Your task to perform on an android device: Open Google Chrome and open the bookmarks view Image 0: 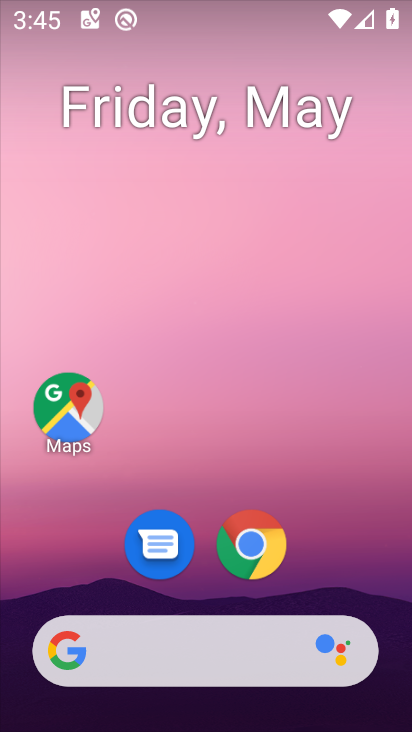
Step 0: drag from (311, 681) to (214, 246)
Your task to perform on an android device: Open Google Chrome and open the bookmarks view Image 1: 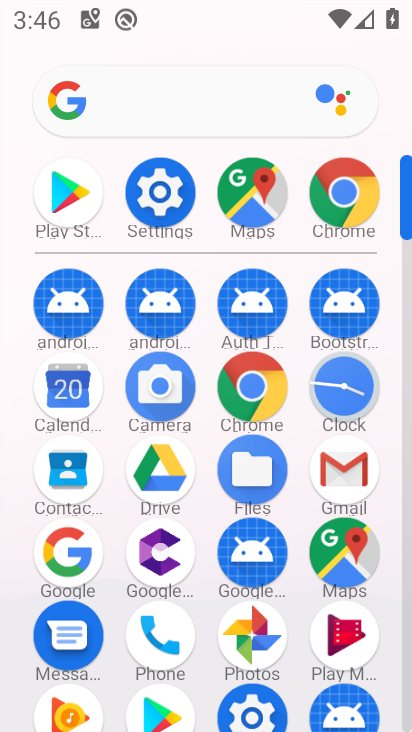
Step 1: click (339, 194)
Your task to perform on an android device: Open Google Chrome and open the bookmarks view Image 2: 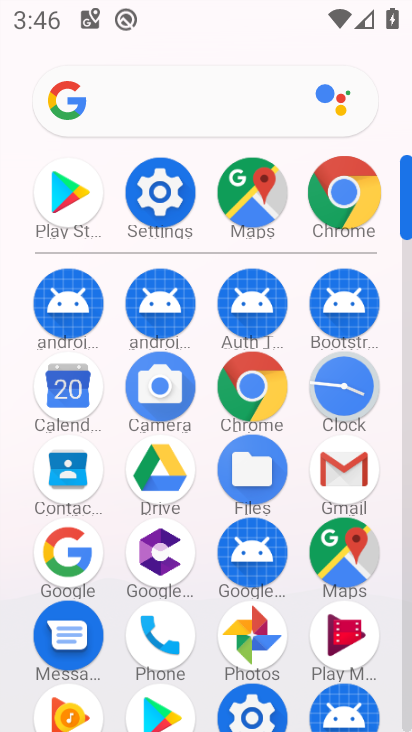
Step 2: click (339, 194)
Your task to perform on an android device: Open Google Chrome and open the bookmarks view Image 3: 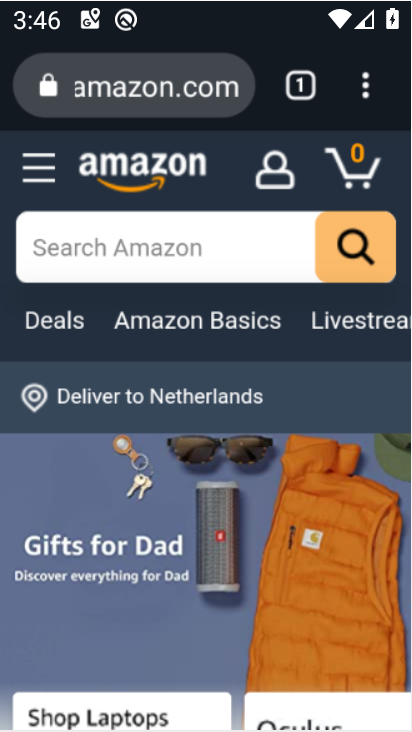
Step 3: click (339, 194)
Your task to perform on an android device: Open Google Chrome and open the bookmarks view Image 4: 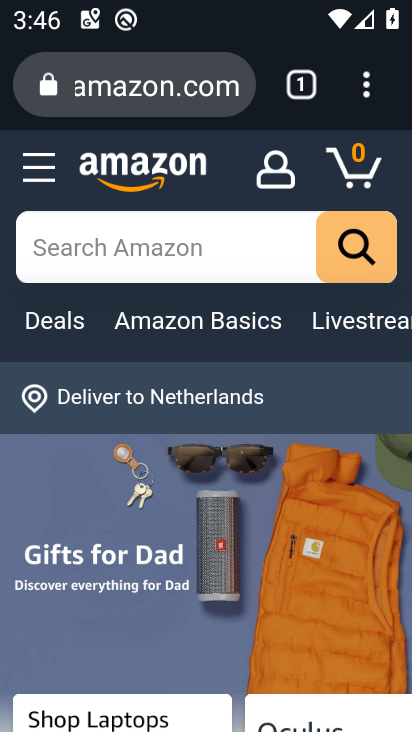
Step 4: drag from (362, 96) to (123, 313)
Your task to perform on an android device: Open Google Chrome and open the bookmarks view Image 5: 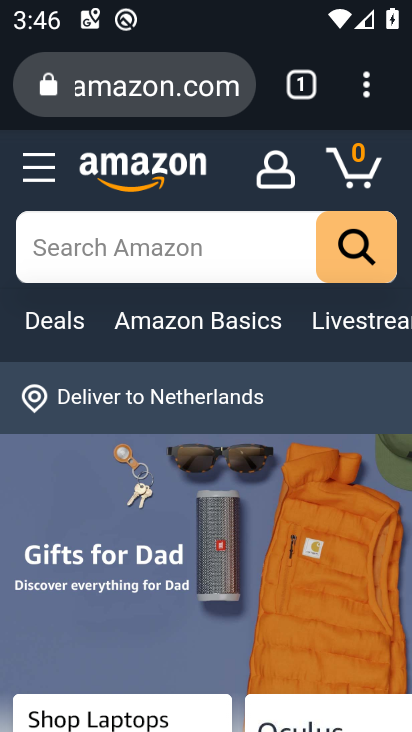
Step 5: click (102, 321)
Your task to perform on an android device: Open Google Chrome and open the bookmarks view Image 6: 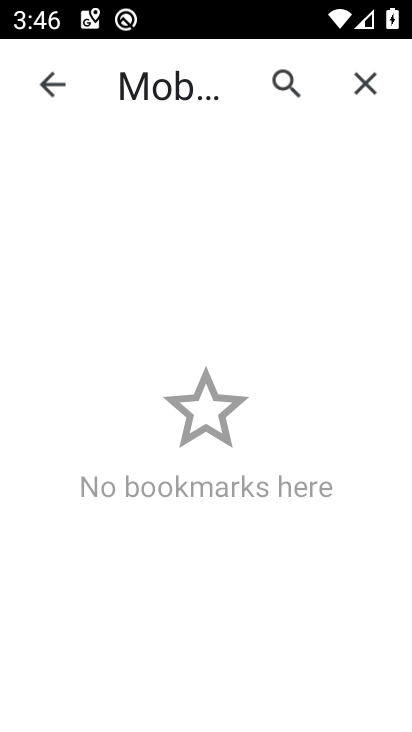
Step 6: task complete